Your task to perform on an android device: Open Reddit.com Image 0: 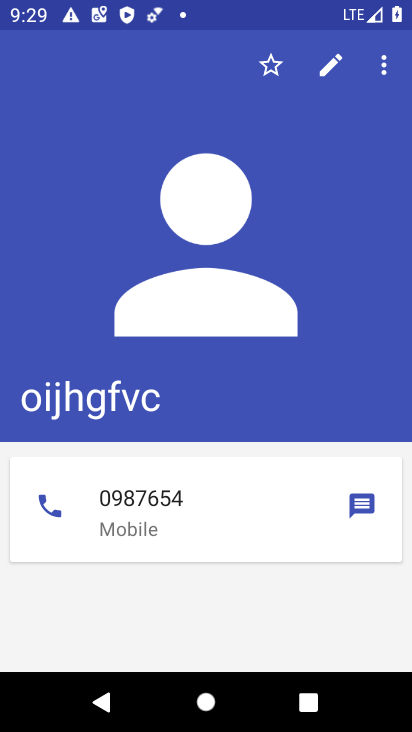
Step 0: press home button
Your task to perform on an android device: Open Reddit.com Image 1: 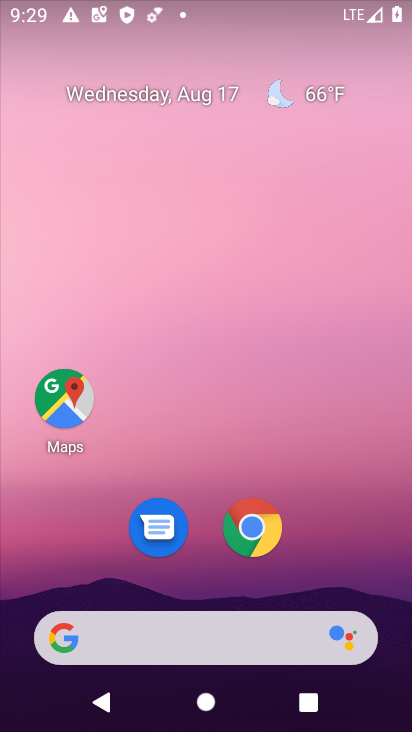
Step 1: click (231, 605)
Your task to perform on an android device: Open Reddit.com Image 2: 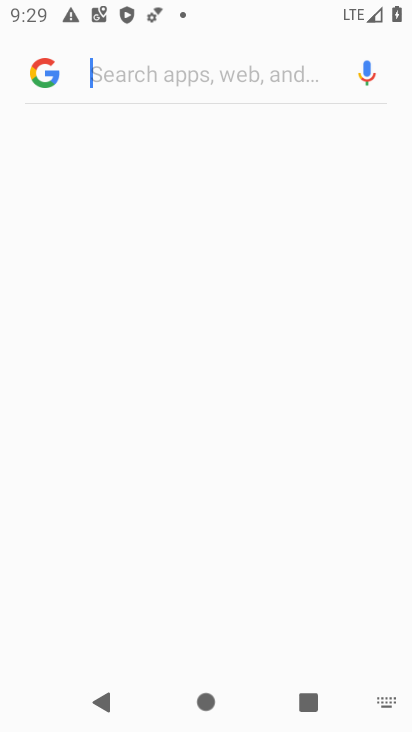
Step 2: click (241, 623)
Your task to perform on an android device: Open Reddit.com Image 3: 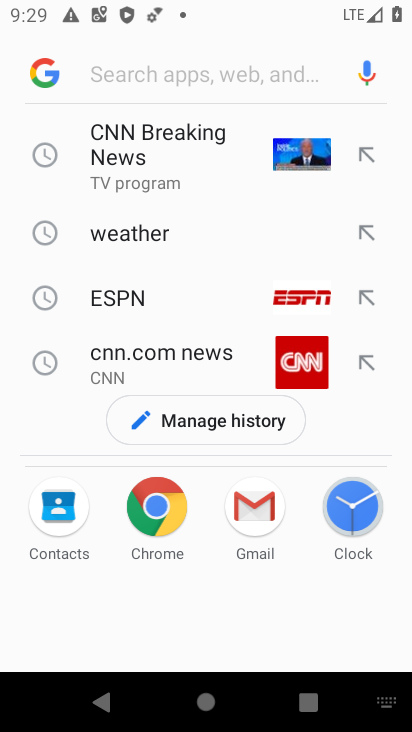
Step 3: type "reddit"
Your task to perform on an android device: Open Reddit.com Image 4: 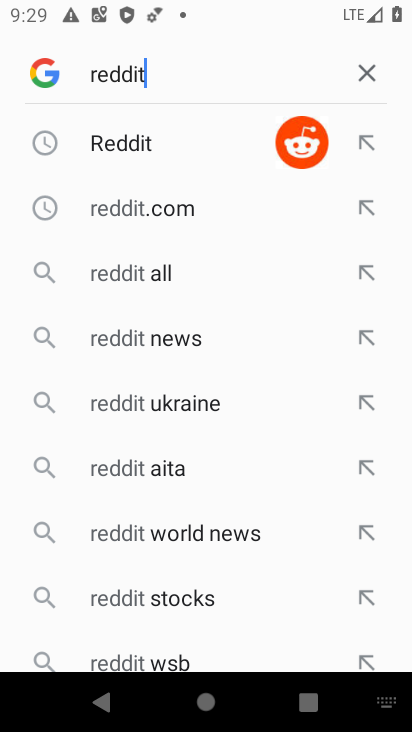
Step 4: click (138, 152)
Your task to perform on an android device: Open Reddit.com Image 5: 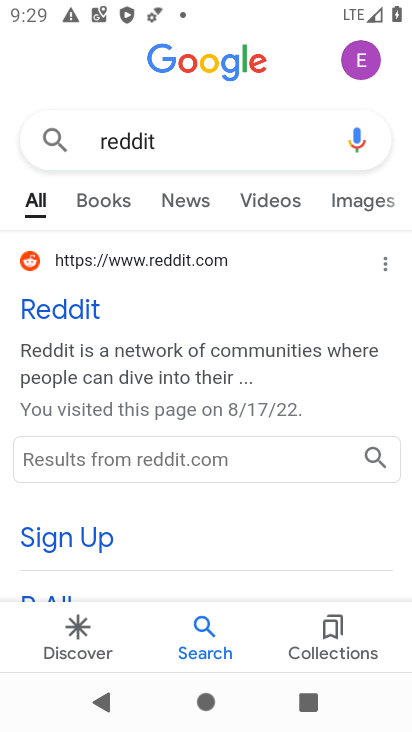
Step 5: click (36, 312)
Your task to perform on an android device: Open Reddit.com Image 6: 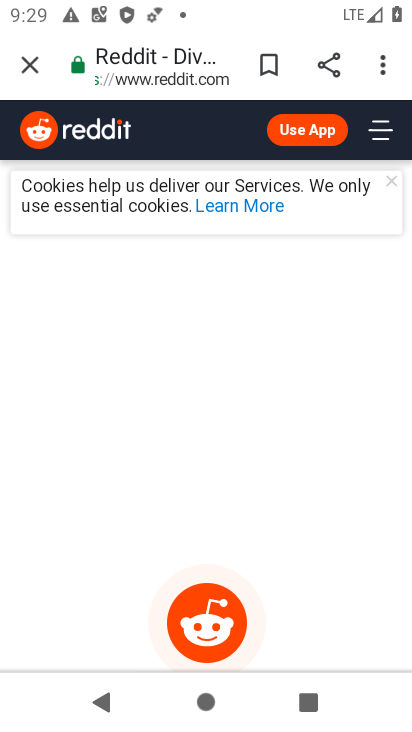
Step 6: task complete